Your task to perform on an android device: make emails show in primary in the gmail app Image 0: 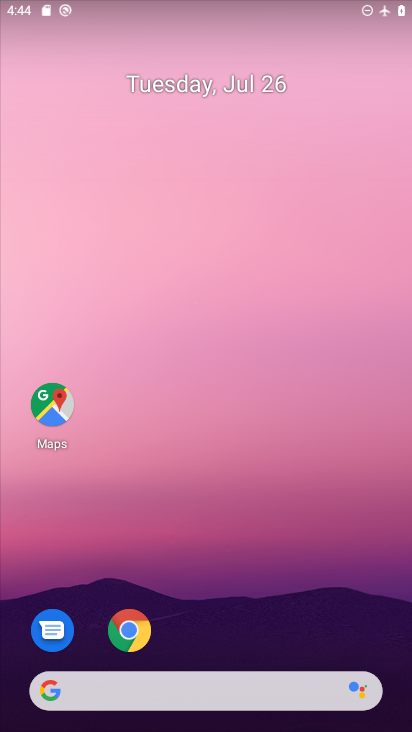
Step 0: drag from (268, 635) to (236, 187)
Your task to perform on an android device: make emails show in primary in the gmail app Image 1: 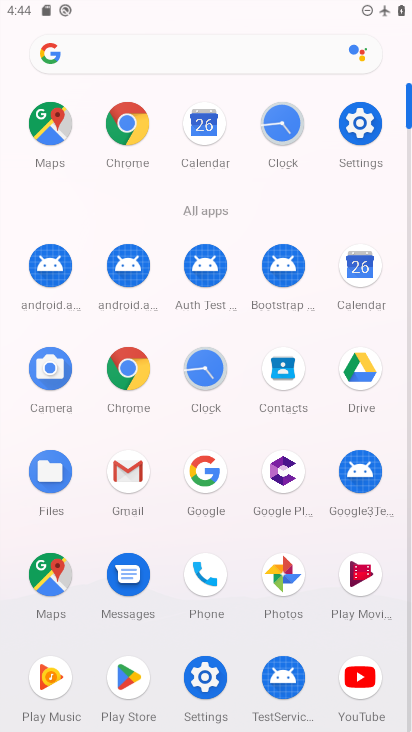
Step 1: click (130, 478)
Your task to perform on an android device: make emails show in primary in the gmail app Image 2: 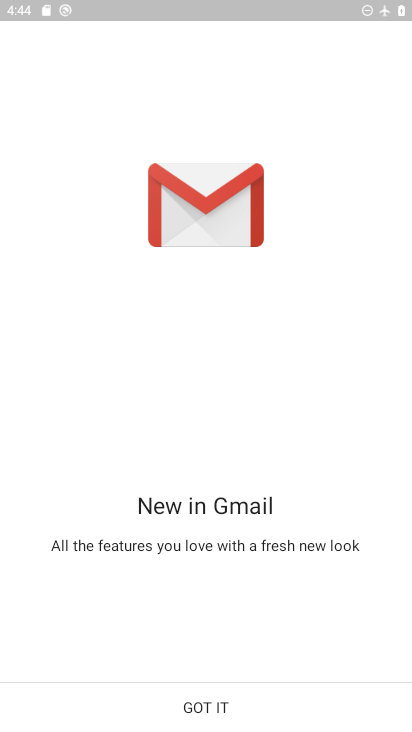
Step 2: click (223, 710)
Your task to perform on an android device: make emails show in primary in the gmail app Image 3: 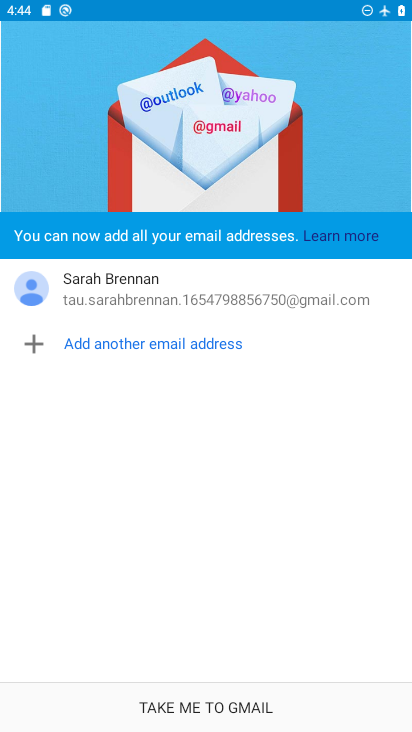
Step 3: click (245, 704)
Your task to perform on an android device: make emails show in primary in the gmail app Image 4: 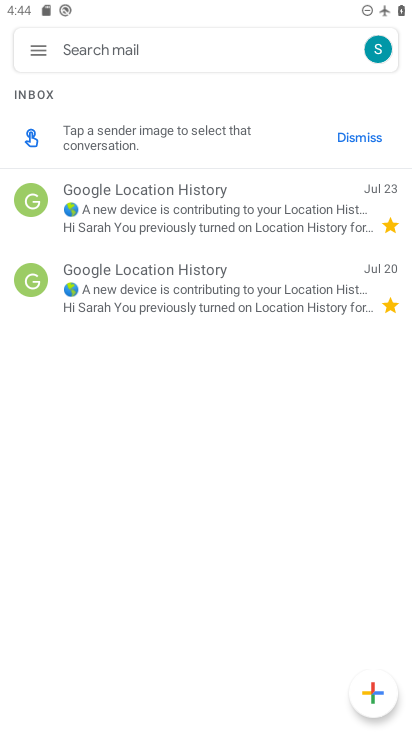
Step 4: click (34, 48)
Your task to perform on an android device: make emails show in primary in the gmail app Image 5: 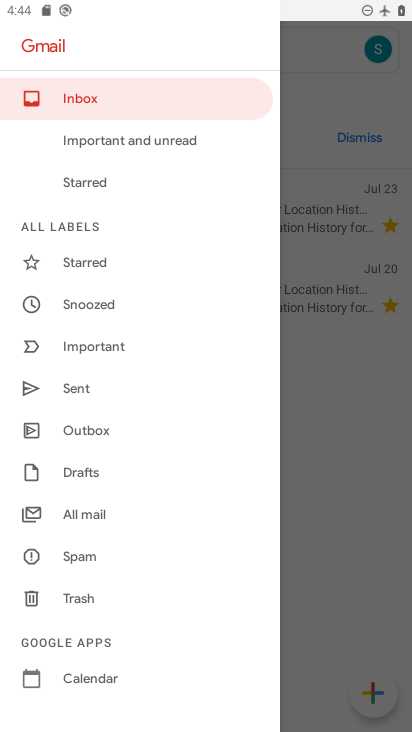
Step 5: drag from (138, 655) to (121, 332)
Your task to perform on an android device: make emails show in primary in the gmail app Image 6: 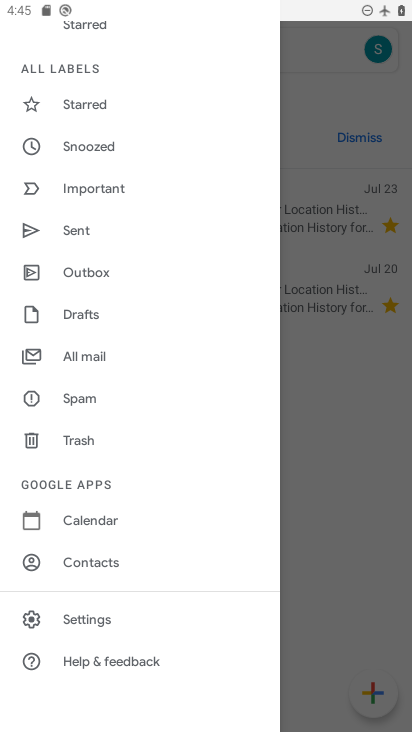
Step 6: click (104, 624)
Your task to perform on an android device: make emails show in primary in the gmail app Image 7: 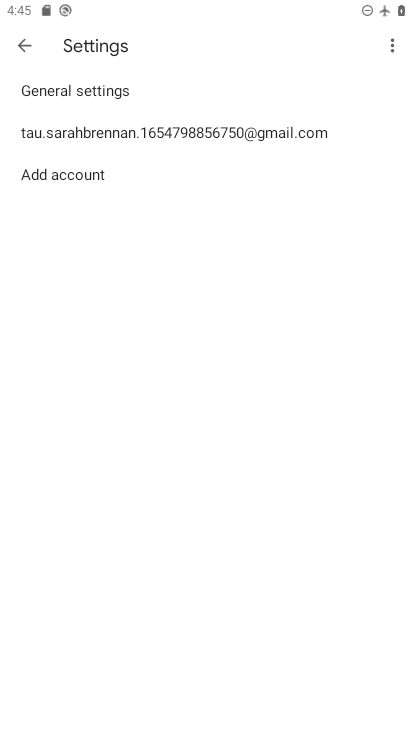
Step 7: click (301, 138)
Your task to perform on an android device: make emails show in primary in the gmail app Image 8: 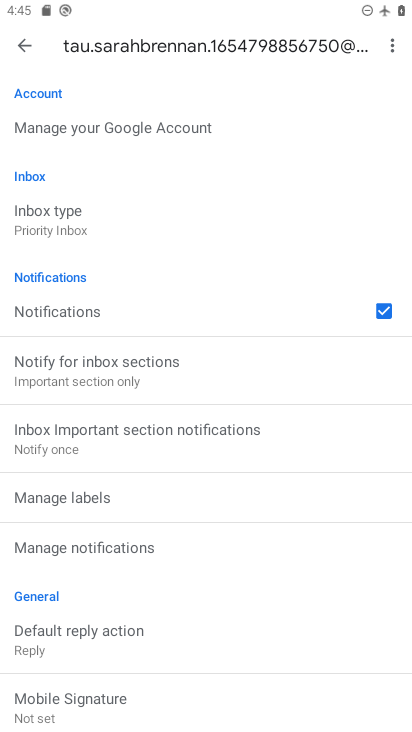
Step 8: drag from (243, 551) to (222, 366)
Your task to perform on an android device: make emails show in primary in the gmail app Image 9: 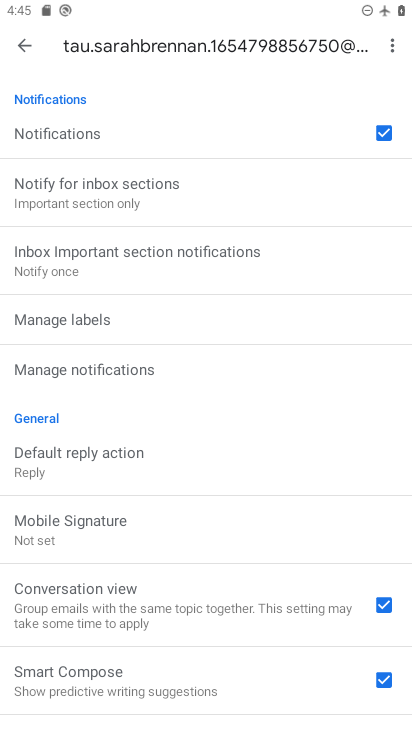
Step 9: drag from (133, 123) to (126, 538)
Your task to perform on an android device: make emails show in primary in the gmail app Image 10: 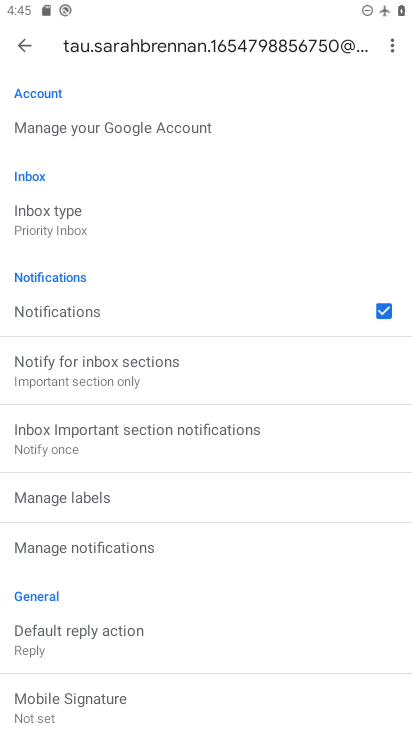
Step 10: click (62, 228)
Your task to perform on an android device: make emails show in primary in the gmail app Image 11: 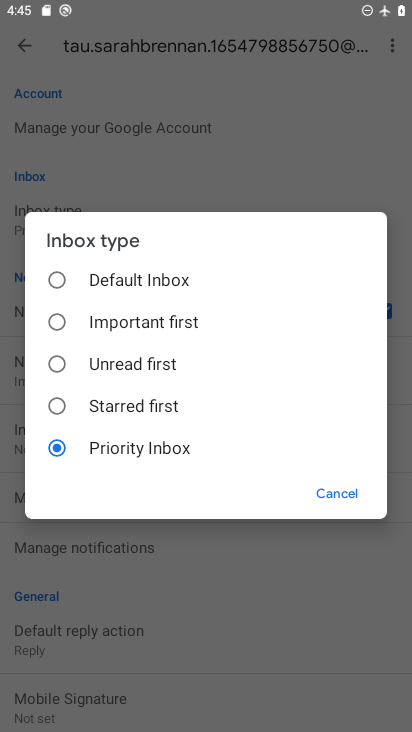
Step 11: click (152, 285)
Your task to perform on an android device: make emails show in primary in the gmail app Image 12: 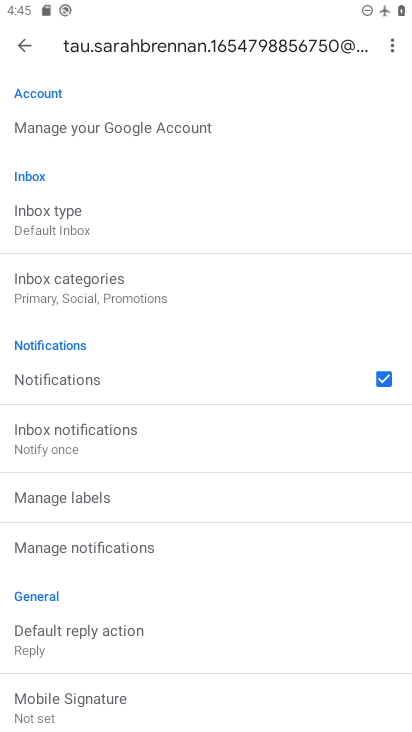
Step 12: task complete